Your task to perform on an android device: Open Android settings Image 0: 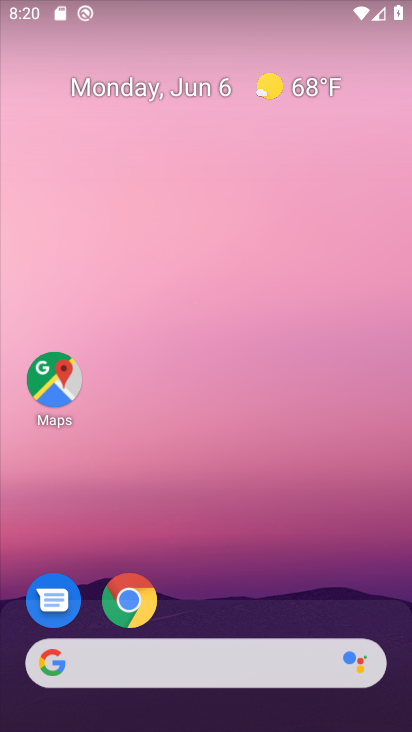
Step 0: drag from (55, 573) to (240, 146)
Your task to perform on an android device: Open Android settings Image 1: 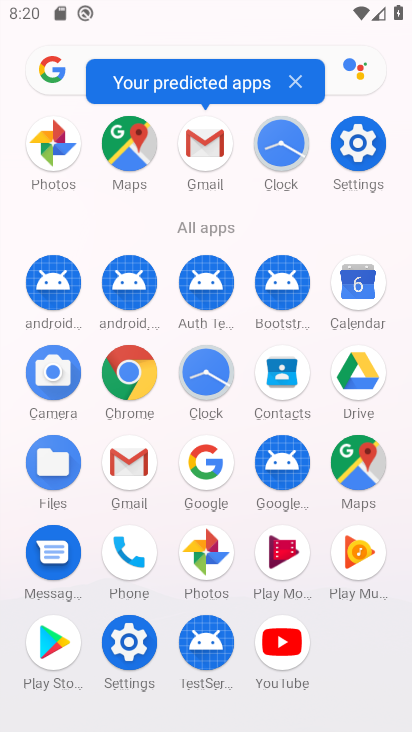
Step 1: click (361, 169)
Your task to perform on an android device: Open Android settings Image 2: 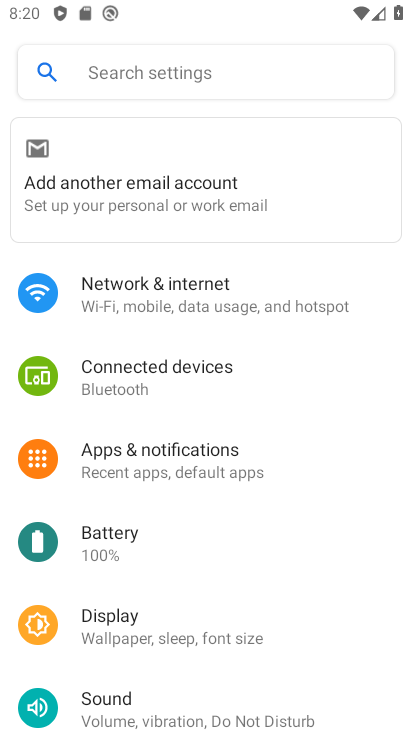
Step 2: drag from (68, 634) to (319, 150)
Your task to perform on an android device: Open Android settings Image 3: 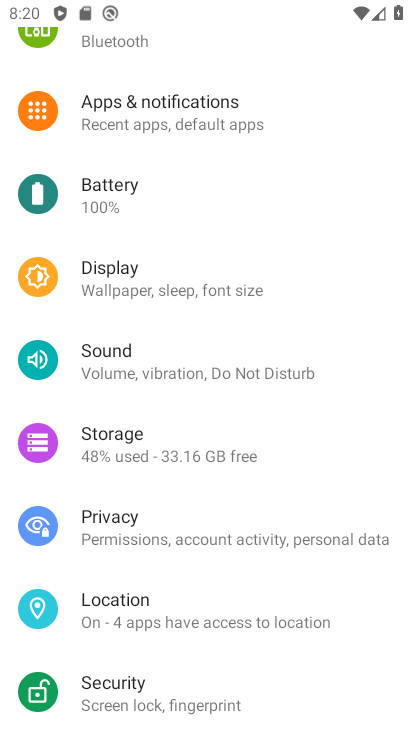
Step 3: drag from (136, 591) to (324, 255)
Your task to perform on an android device: Open Android settings Image 4: 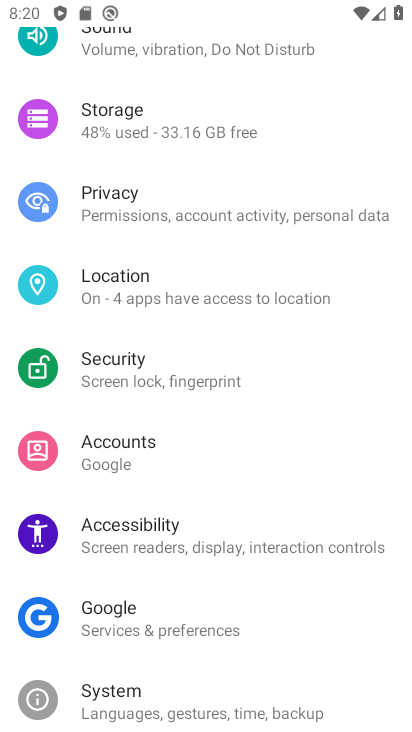
Step 4: drag from (52, 684) to (229, 340)
Your task to perform on an android device: Open Android settings Image 5: 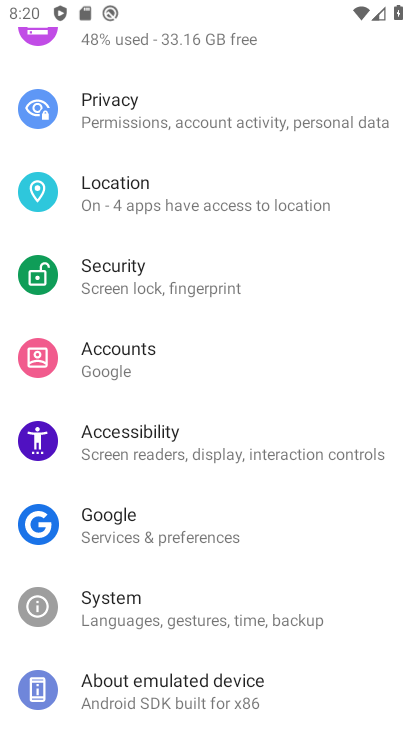
Step 5: click (108, 605)
Your task to perform on an android device: Open Android settings Image 6: 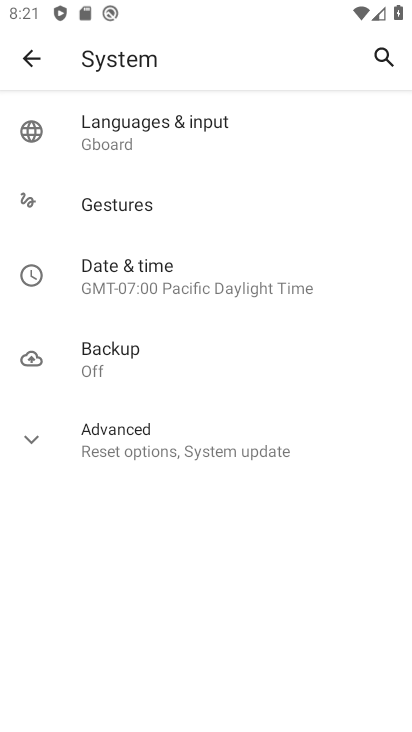
Step 6: task complete